Your task to perform on an android device: When is my next appointment? Image 0: 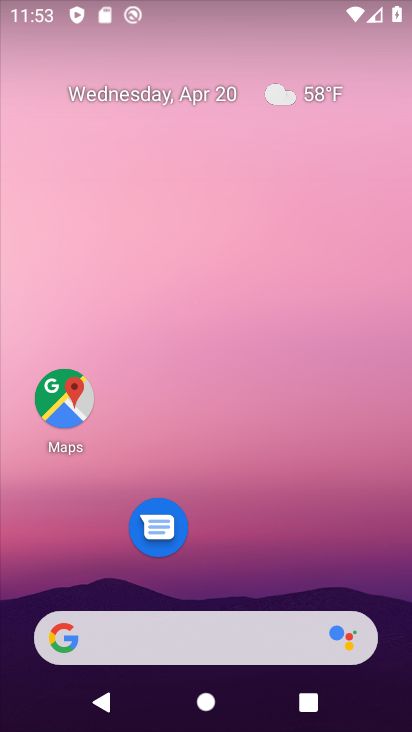
Step 0: drag from (204, 699) to (204, 109)
Your task to perform on an android device: When is my next appointment? Image 1: 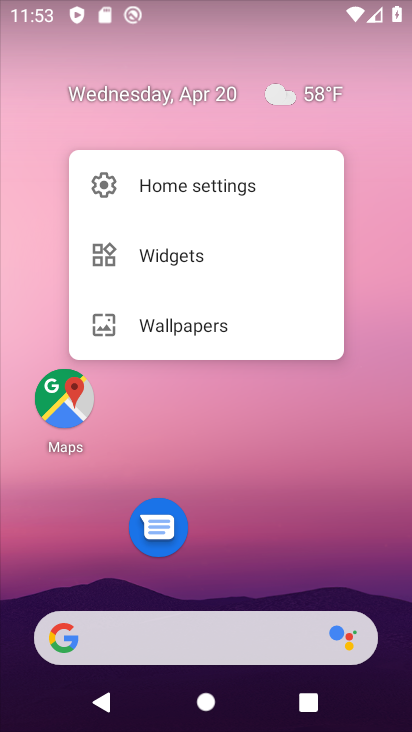
Step 1: click (222, 430)
Your task to perform on an android device: When is my next appointment? Image 2: 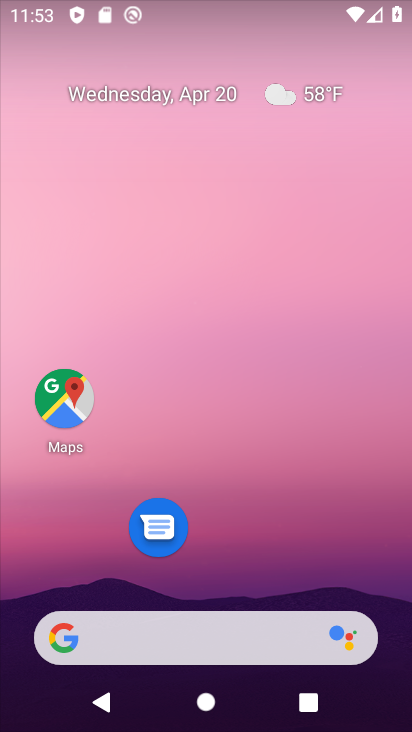
Step 2: drag from (204, 722) to (204, 22)
Your task to perform on an android device: When is my next appointment? Image 3: 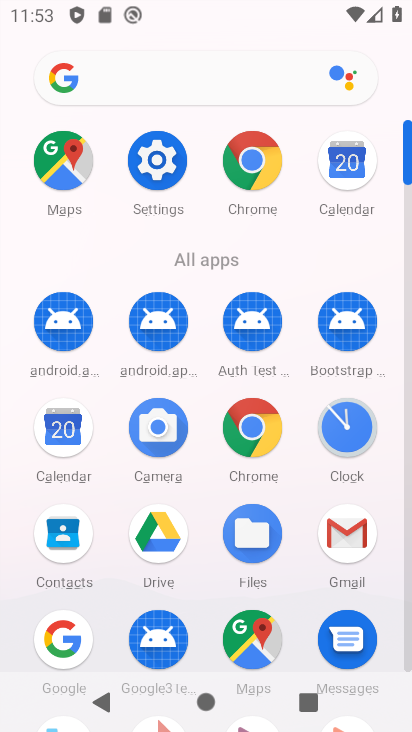
Step 3: click (58, 442)
Your task to perform on an android device: When is my next appointment? Image 4: 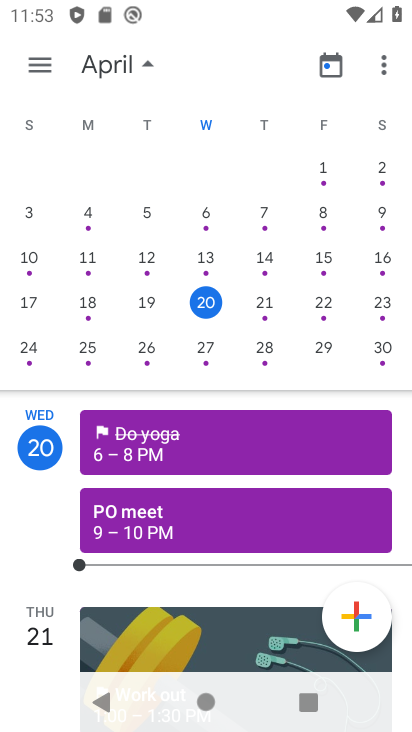
Step 4: click (34, 59)
Your task to perform on an android device: When is my next appointment? Image 5: 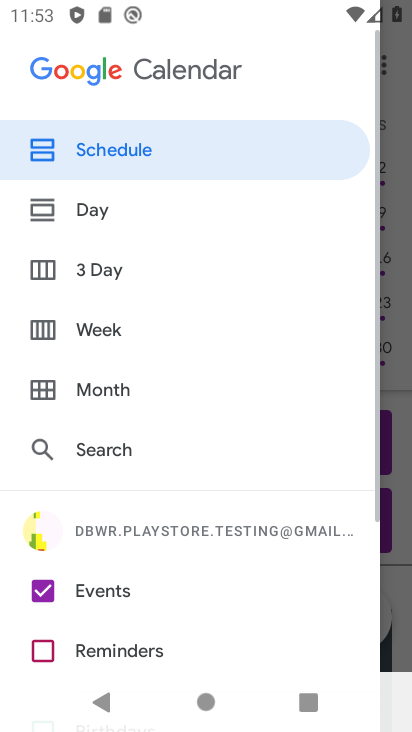
Step 5: drag from (202, 631) to (203, 293)
Your task to perform on an android device: When is my next appointment? Image 6: 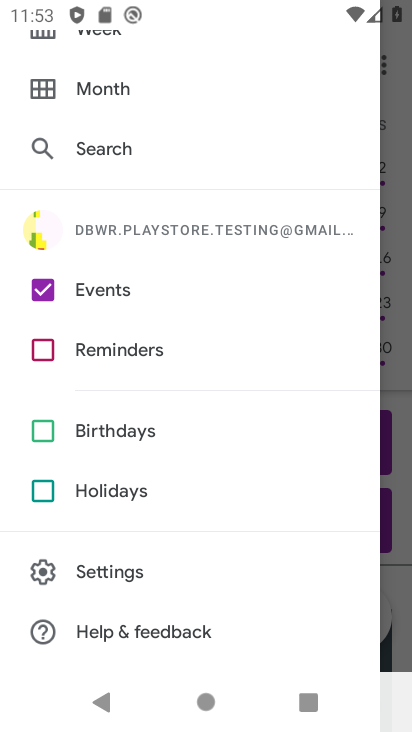
Step 6: click (395, 302)
Your task to perform on an android device: When is my next appointment? Image 7: 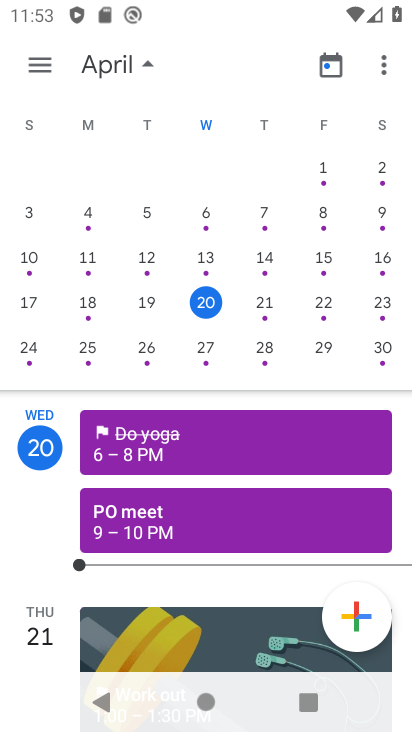
Step 7: click (264, 300)
Your task to perform on an android device: When is my next appointment? Image 8: 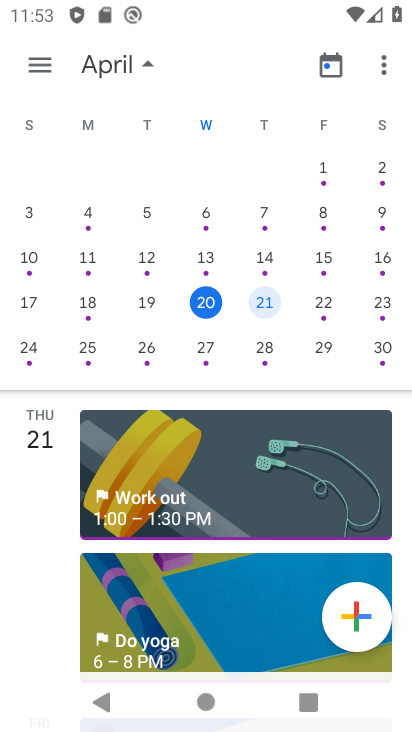
Step 8: task complete